Your task to perform on an android device: Open Wikipedia Image 0: 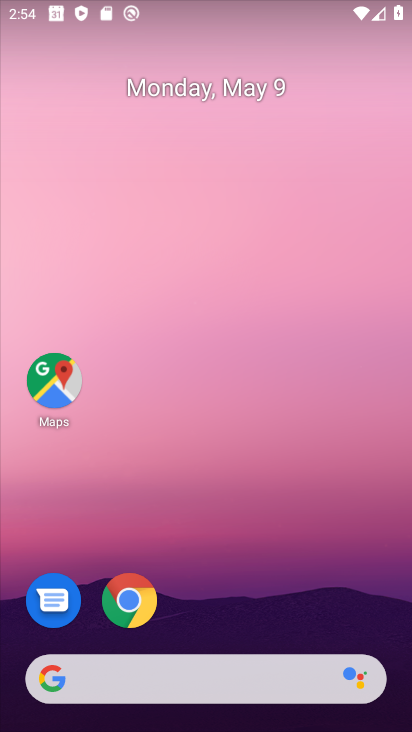
Step 0: drag from (227, 722) to (224, 68)
Your task to perform on an android device: Open Wikipedia Image 1: 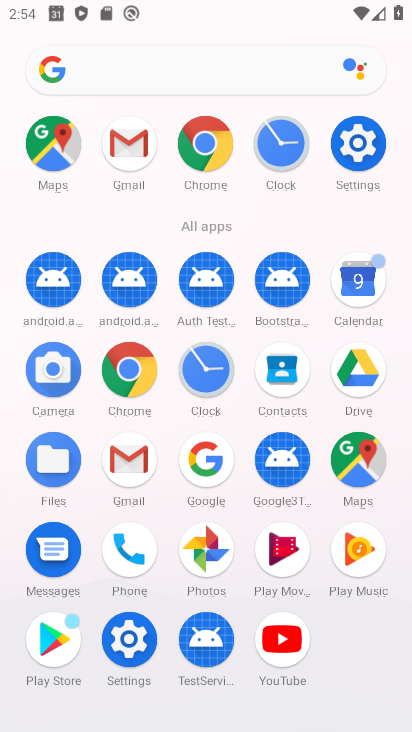
Step 1: click (195, 139)
Your task to perform on an android device: Open Wikipedia Image 2: 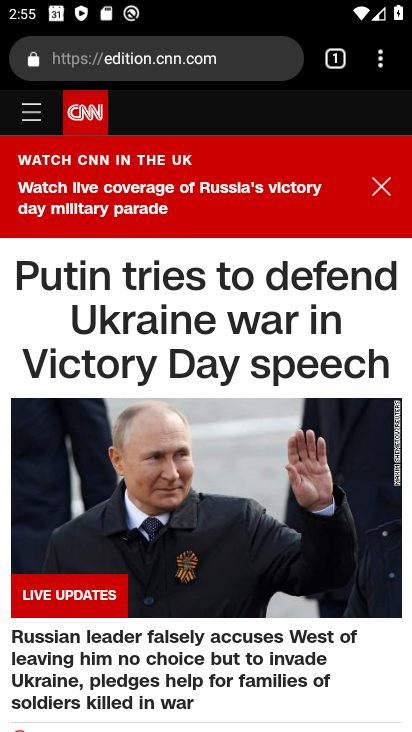
Step 2: drag from (382, 63) to (182, 178)
Your task to perform on an android device: Open Wikipedia Image 3: 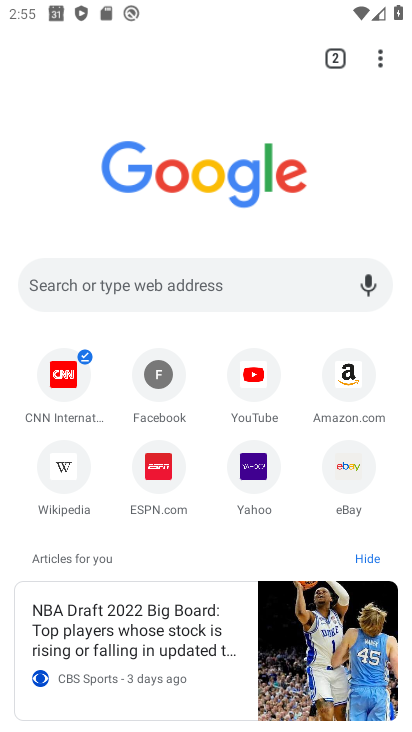
Step 3: click (64, 468)
Your task to perform on an android device: Open Wikipedia Image 4: 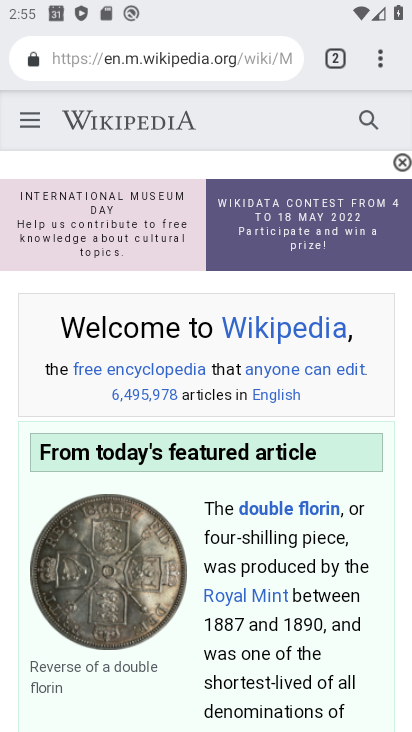
Step 4: task complete